Your task to perform on an android device: toggle translation in the chrome app Image 0: 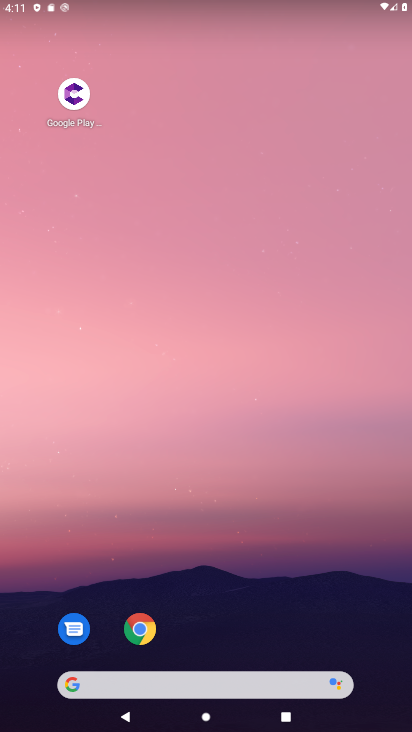
Step 0: click (138, 630)
Your task to perform on an android device: toggle translation in the chrome app Image 1: 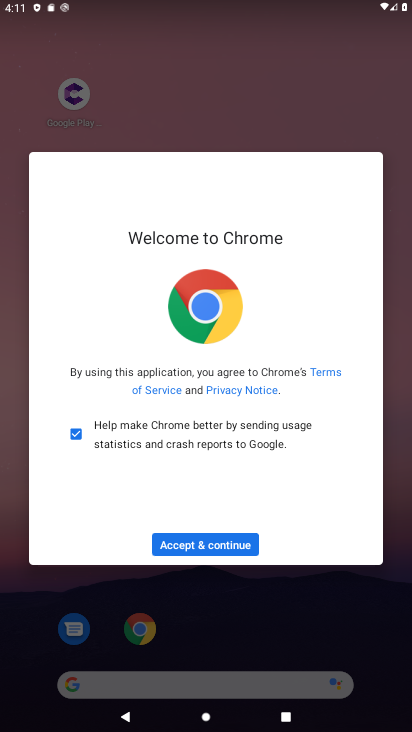
Step 1: click (189, 546)
Your task to perform on an android device: toggle translation in the chrome app Image 2: 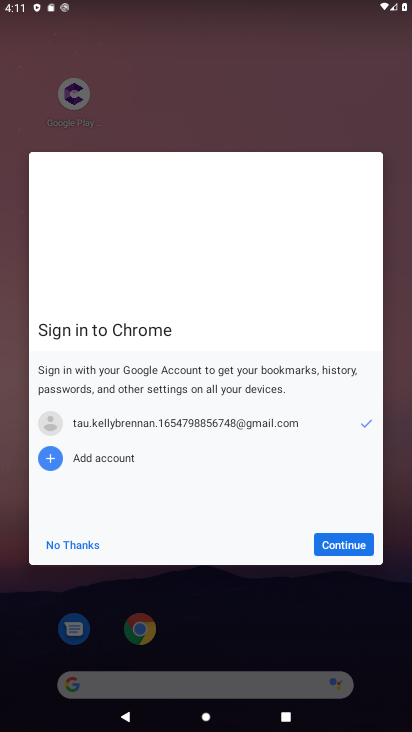
Step 2: click (348, 545)
Your task to perform on an android device: toggle translation in the chrome app Image 3: 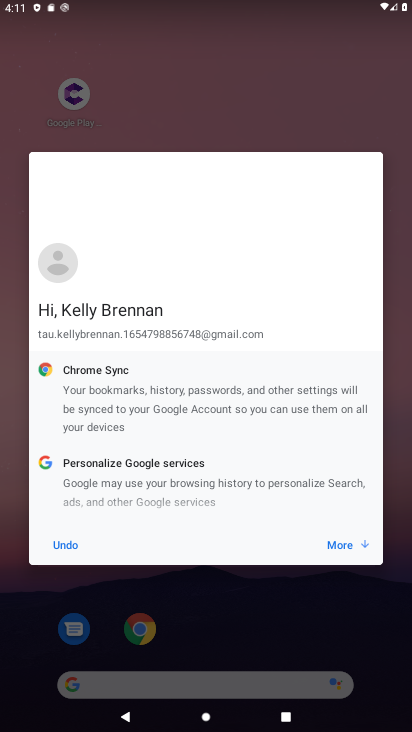
Step 3: click (348, 545)
Your task to perform on an android device: toggle translation in the chrome app Image 4: 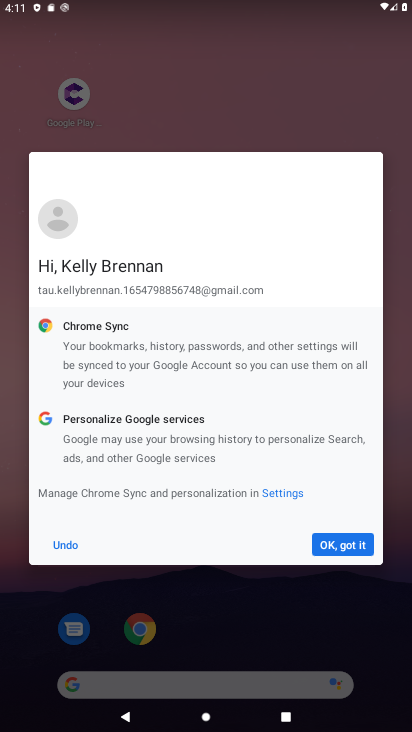
Step 4: click (348, 545)
Your task to perform on an android device: toggle translation in the chrome app Image 5: 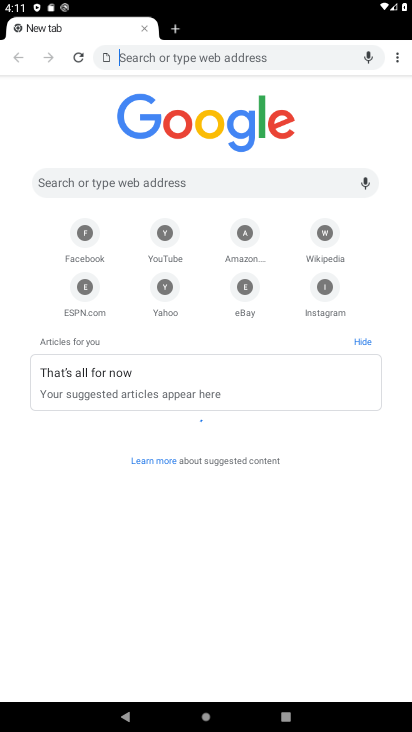
Step 5: click (399, 61)
Your task to perform on an android device: toggle translation in the chrome app Image 6: 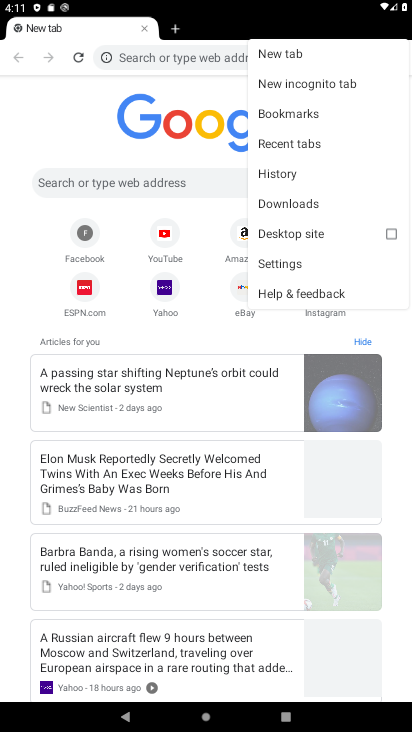
Step 6: click (280, 264)
Your task to perform on an android device: toggle translation in the chrome app Image 7: 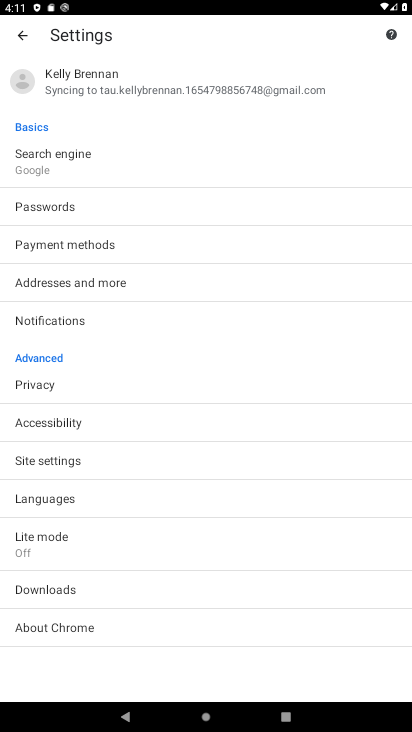
Step 7: click (40, 497)
Your task to perform on an android device: toggle translation in the chrome app Image 8: 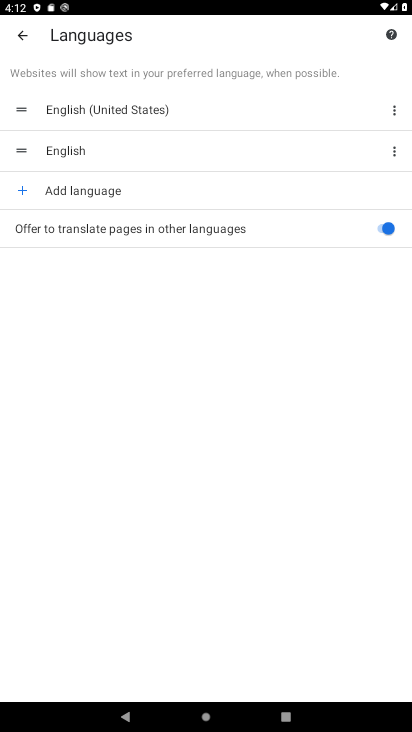
Step 8: click (393, 228)
Your task to perform on an android device: toggle translation in the chrome app Image 9: 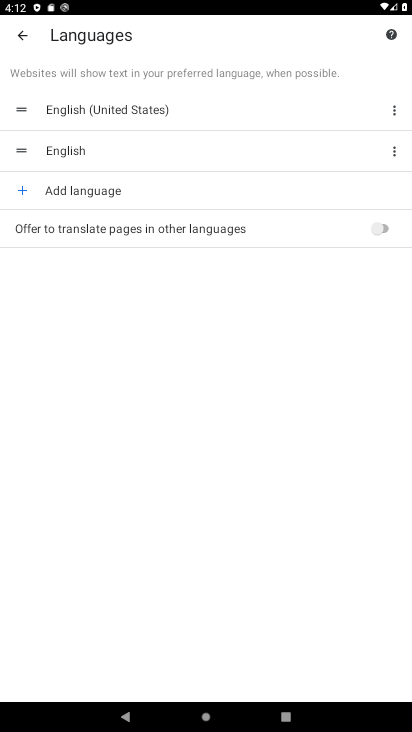
Step 9: task complete